Your task to perform on an android device: Open Google Maps Image 0: 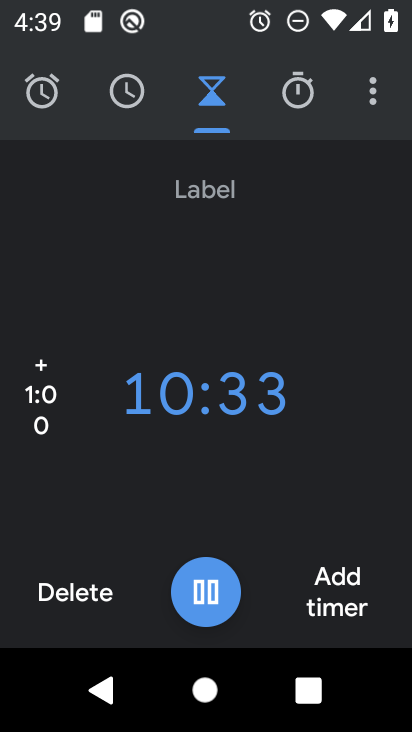
Step 0: press home button
Your task to perform on an android device: Open Google Maps Image 1: 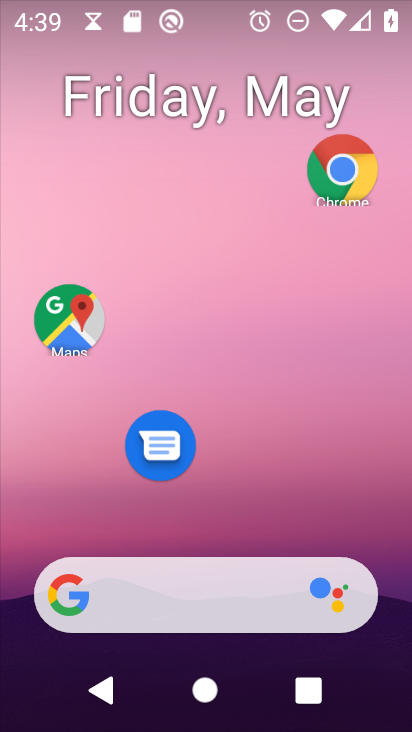
Step 1: click (69, 321)
Your task to perform on an android device: Open Google Maps Image 2: 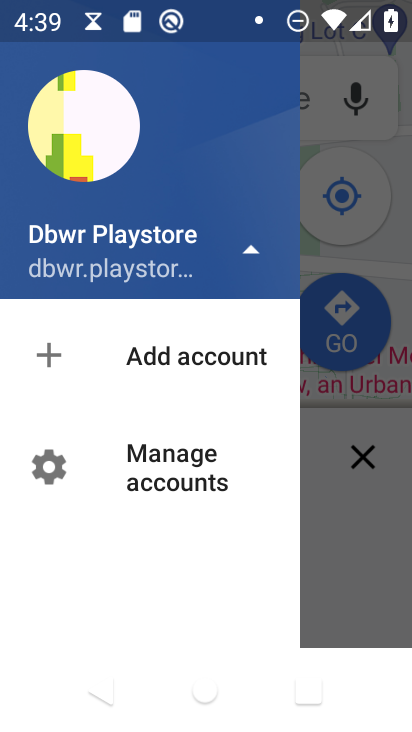
Step 2: task complete